Your task to perform on an android device: Show me popular videos on Youtube Image 0: 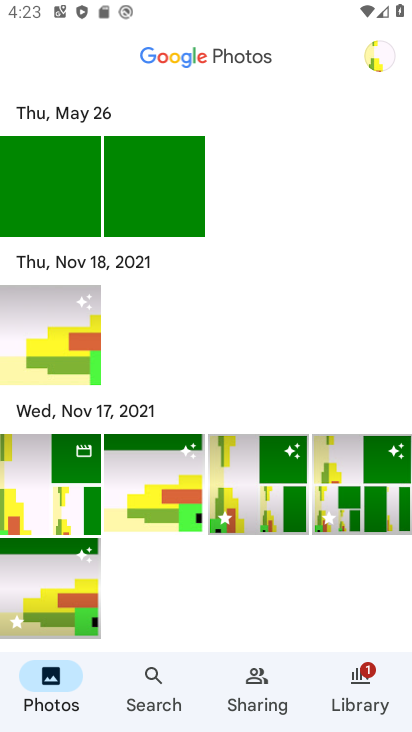
Step 0: press back button
Your task to perform on an android device: Show me popular videos on Youtube Image 1: 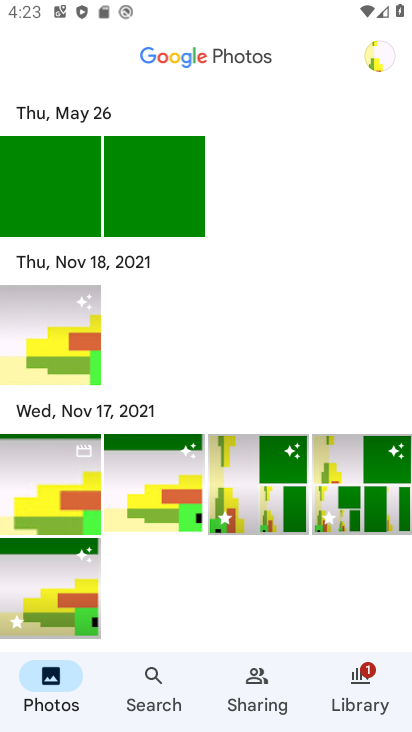
Step 1: press back button
Your task to perform on an android device: Show me popular videos on Youtube Image 2: 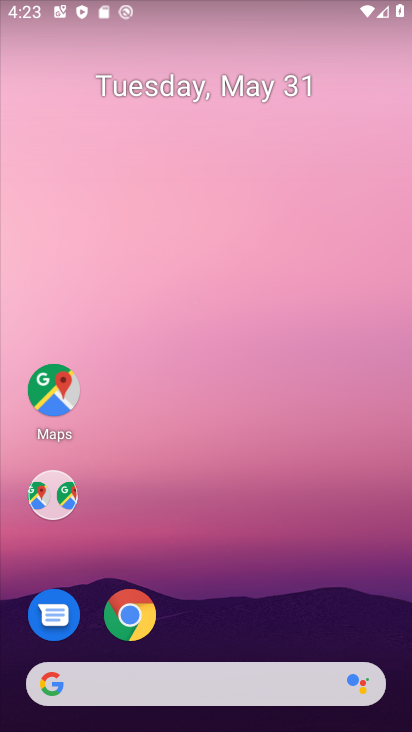
Step 2: drag from (244, 722) to (87, 142)
Your task to perform on an android device: Show me popular videos on Youtube Image 3: 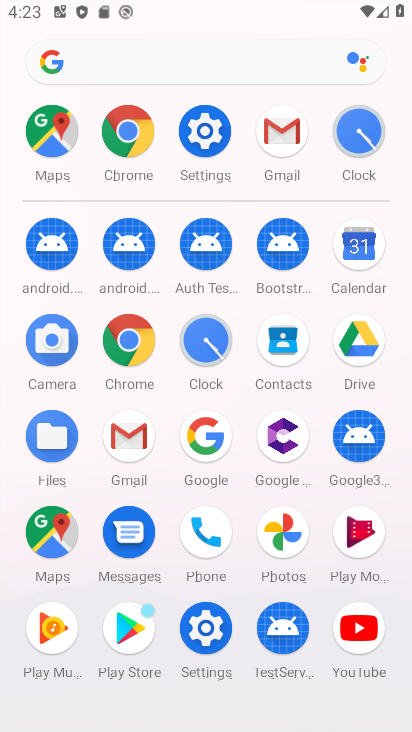
Step 3: click (360, 624)
Your task to perform on an android device: Show me popular videos on Youtube Image 4: 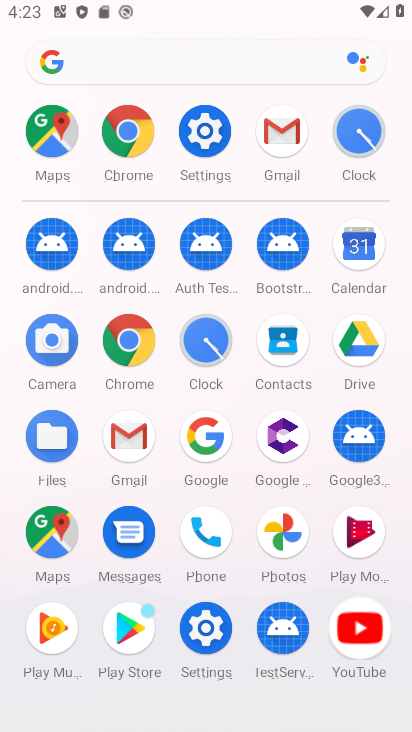
Step 4: click (360, 624)
Your task to perform on an android device: Show me popular videos on Youtube Image 5: 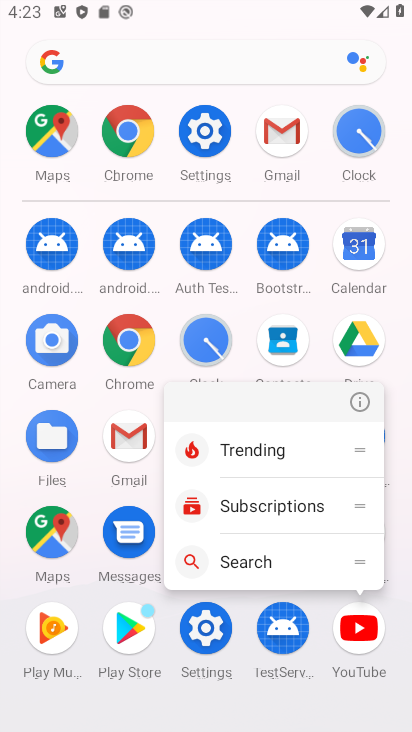
Step 5: click (355, 624)
Your task to perform on an android device: Show me popular videos on Youtube Image 6: 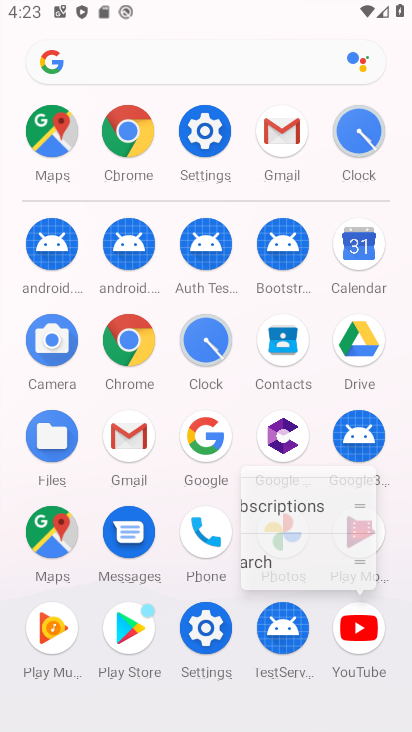
Step 6: click (355, 624)
Your task to perform on an android device: Show me popular videos on Youtube Image 7: 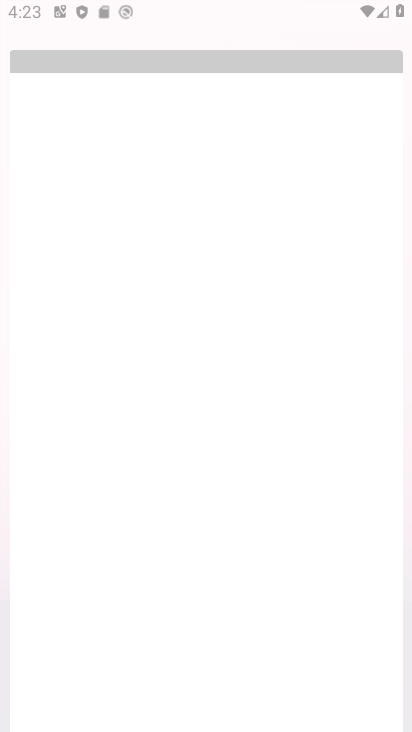
Step 7: click (355, 624)
Your task to perform on an android device: Show me popular videos on Youtube Image 8: 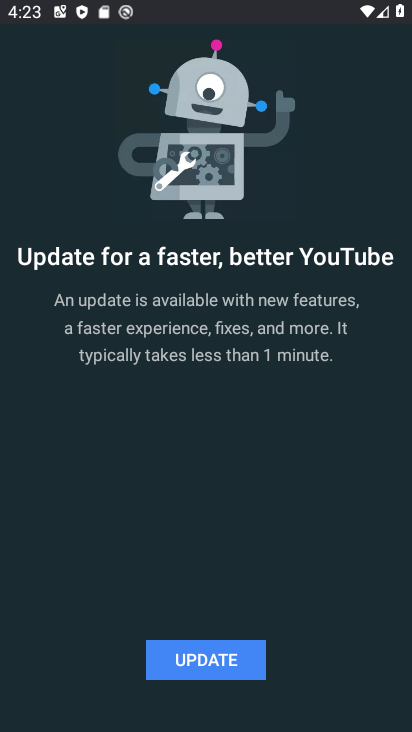
Step 8: press back button
Your task to perform on an android device: Show me popular videos on Youtube Image 9: 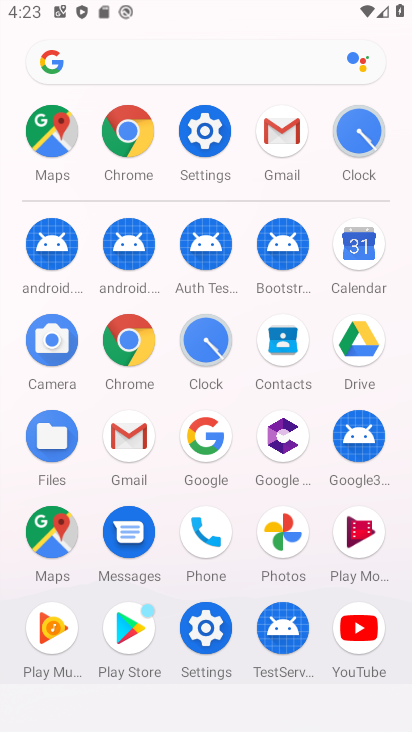
Step 9: click (380, 604)
Your task to perform on an android device: Show me popular videos on Youtube Image 10: 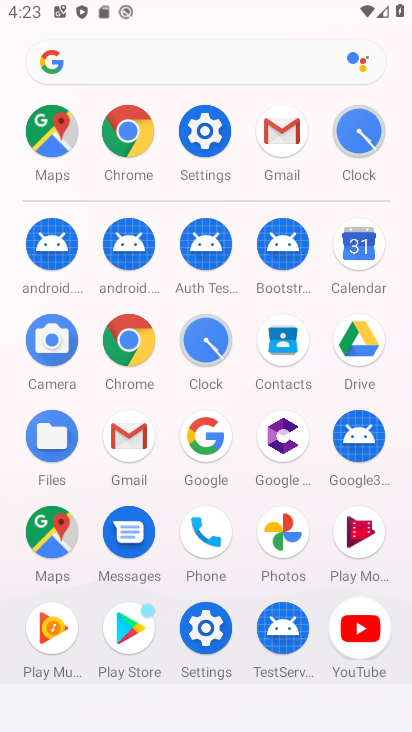
Step 10: click (360, 623)
Your task to perform on an android device: Show me popular videos on Youtube Image 11: 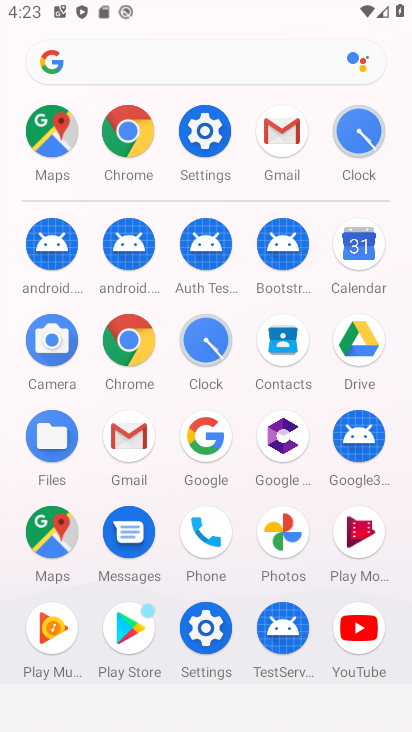
Step 11: click (360, 623)
Your task to perform on an android device: Show me popular videos on Youtube Image 12: 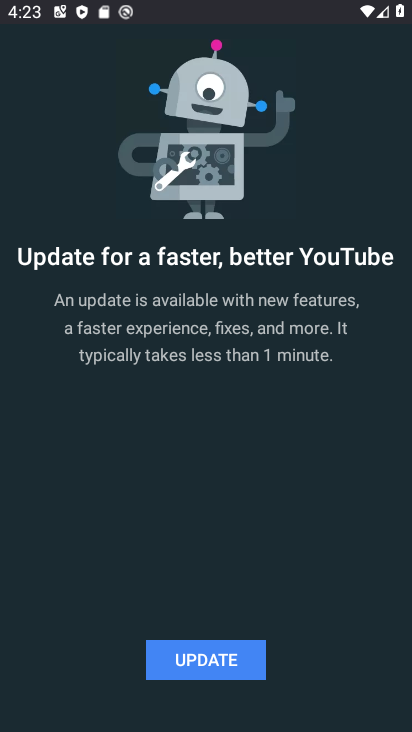
Step 12: click (230, 672)
Your task to perform on an android device: Show me popular videos on Youtube Image 13: 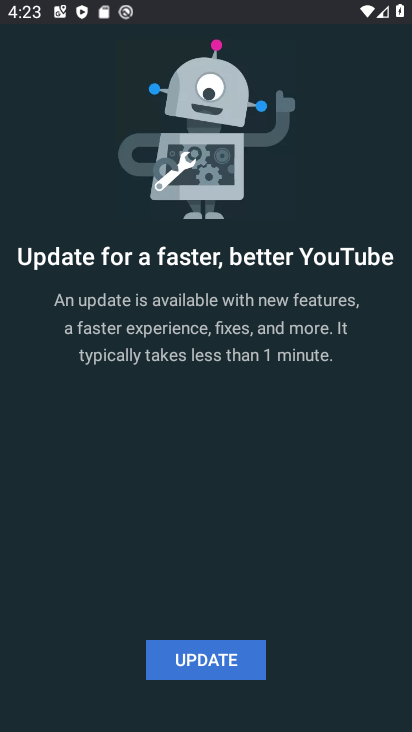
Step 13: click (229, 671)
Your task to perform on an android device: Show me popular videos on Youtube Image 14: 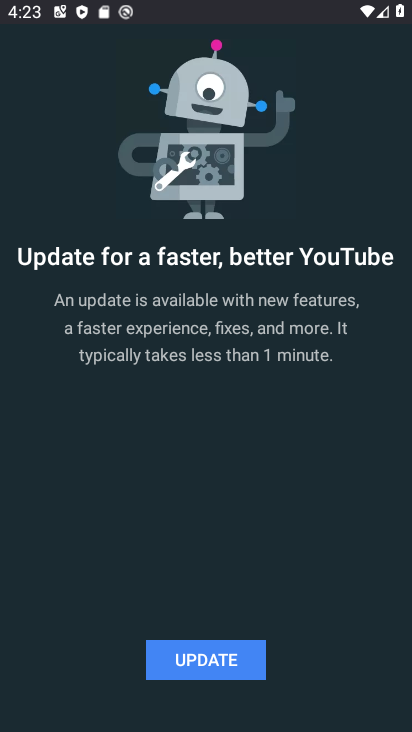
Step 14: click (231, 669)
Your task to perform on an android device: Show me popular videos on Youtube Image 15: 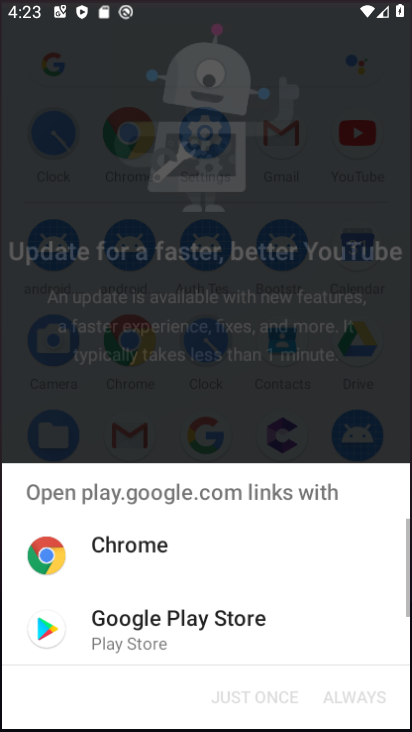
Step 15: click (232, 669)
Your task to perform on an android device: Show me popular videos on Youtube Image 16: 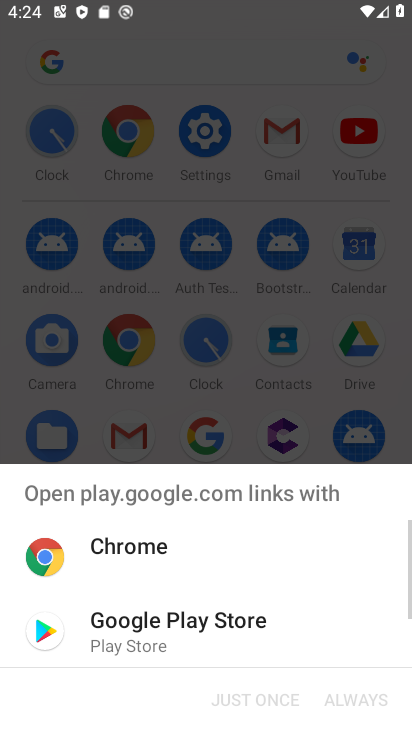
Step 16: click (126, 622)
Your task to perform on an android device: Show me popular videos on Youtube Image 17: 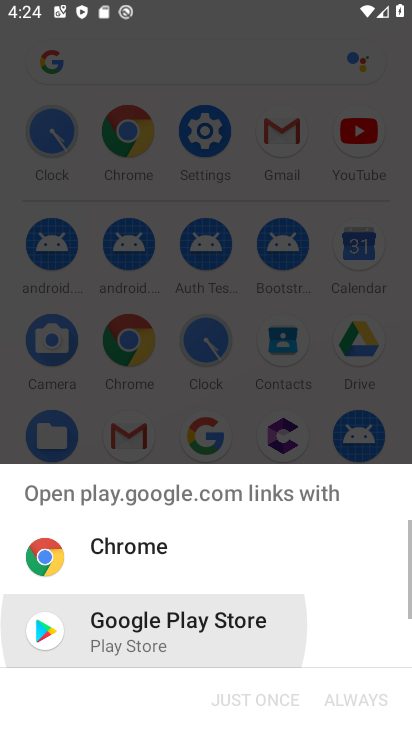
Step 17: click (127, 621)
Your task to perform on an android device: Show me popular videos on Youtube Image 18: 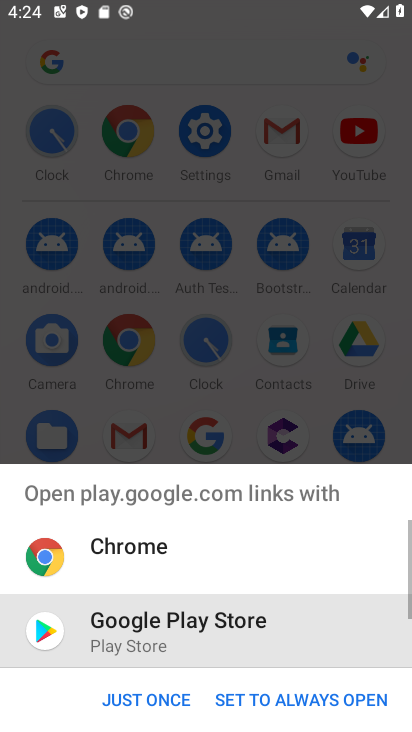
Step 18: click (127, 621)
Your task to perform on an android device: Show me popular videos on Youtube Image 19: 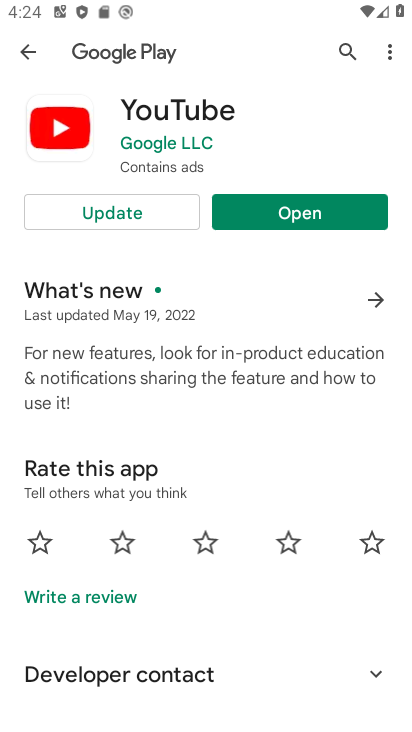
Step 19: click (110, 212)
Your task to perform on an android device: Show me popular videos on Youtube Image 20: 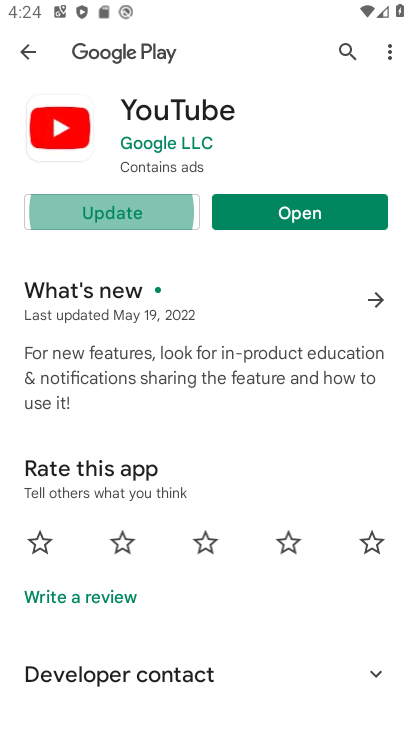
Step 20: click (110, 212)
Your task to perform on an android device: Show me popular videos on Youtube Image 21: 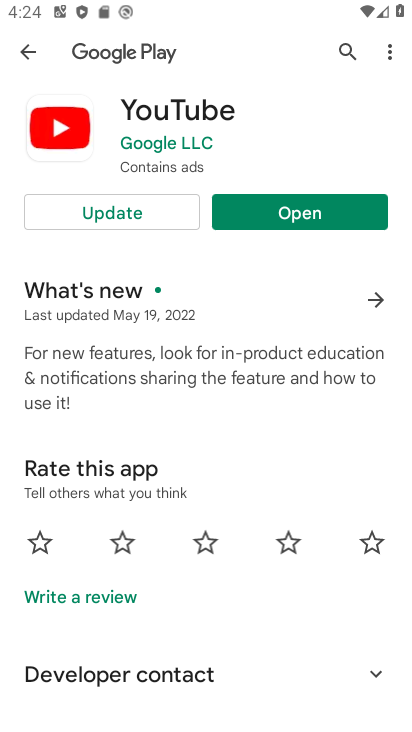
Step 21: click (307, 212)
Your task to perform on an android device: Show me popular videos on Youtube Image 22: 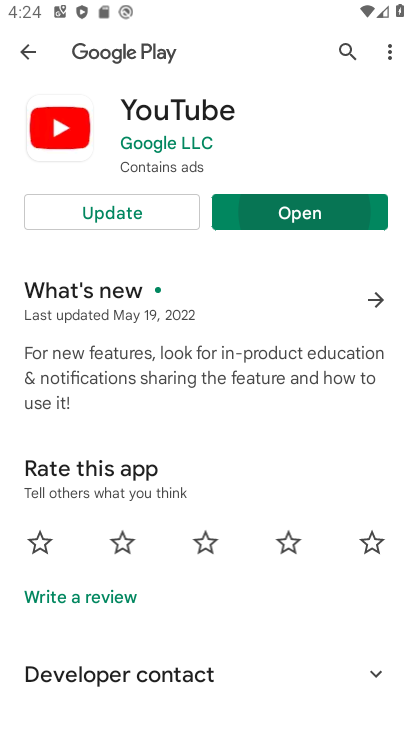
Step 22: click (307, 212)
Your task to perform on an android device: Show me popular videos on Youtube Image 23: 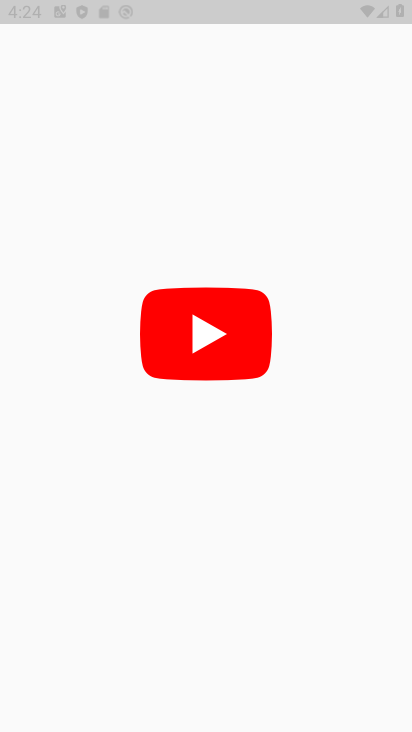
Step 23: click (305, 212)
Your task to perform on an android device: Show me popular videos on Youtube Image 24: 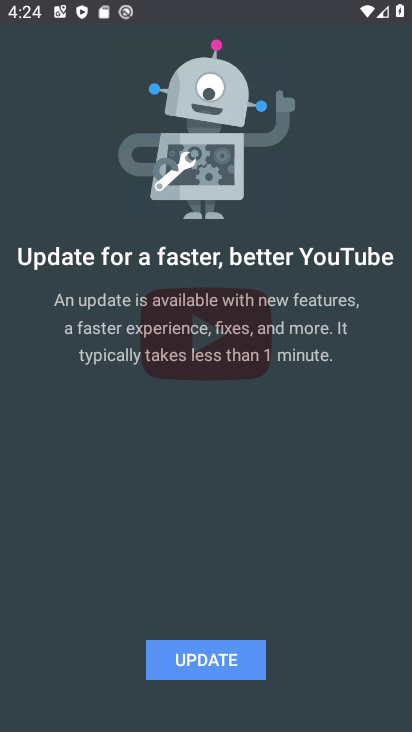
Step 24: click (305, 212)
Your task to perform on an android device: Show me popular videos on Youtube Image 25: 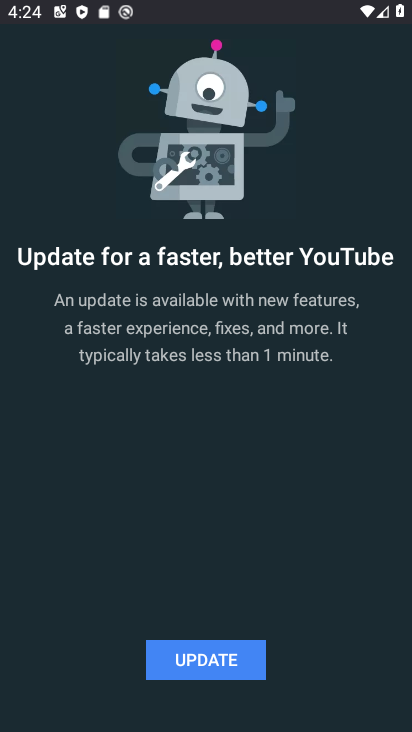
Step 25: task complete